Your task to perform on an android device: Go to Amazon Image 0: 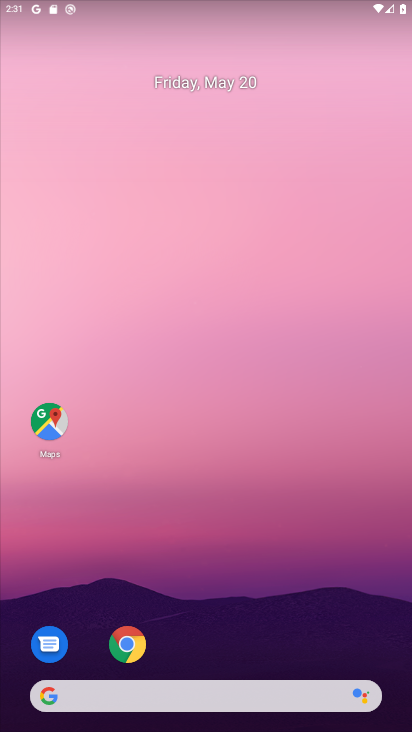
Step 0: click (140, 644)
Your task to perform on an android device: Go to Amazon Image 1: 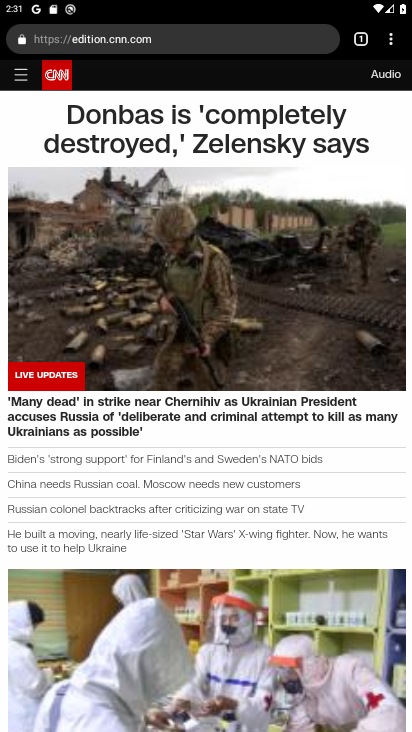
Step 1: click (270, 41)
Your task to perform on an android device: Go to Amazon Image 2: 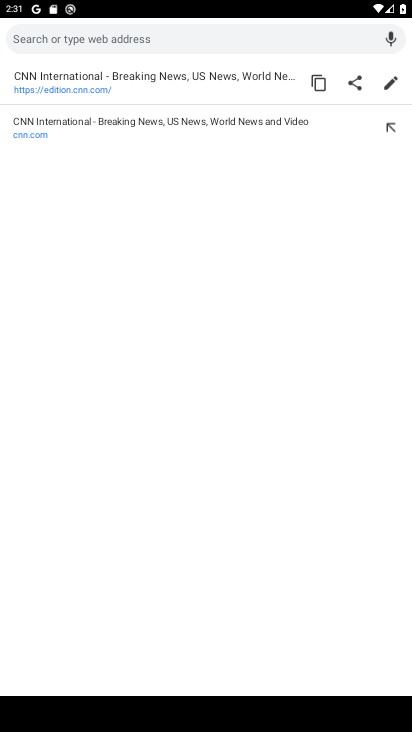
Step 2: type "amazon"
Your task to perform on an android device: Go to Amazon Image 3: 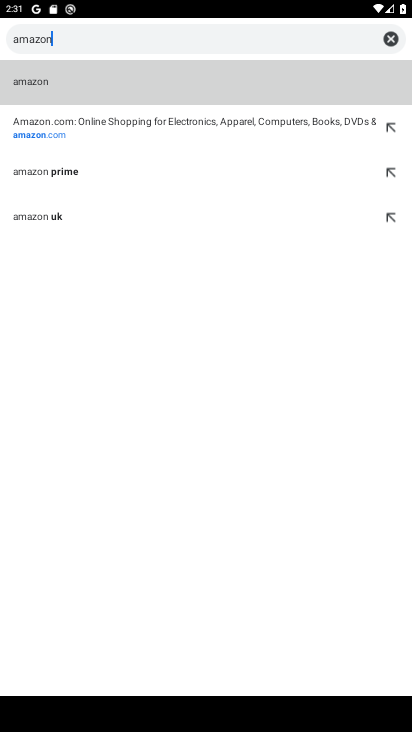
Step 3: click (62, 134)
Your task to perform on an android device: Go to Amazon Image 4: 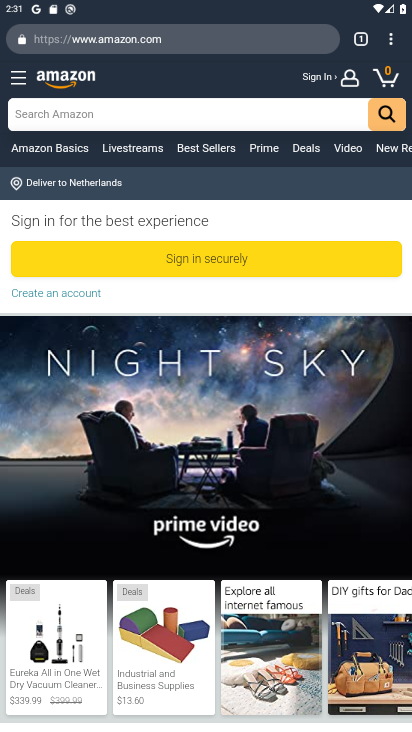
Step 4: task complete